Your task to perform on an android device: What's the weather going to be this weekend? Image 0: 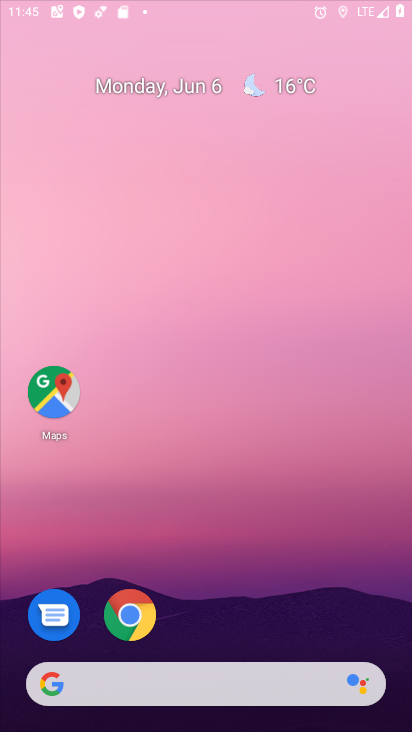
Step 0: press home button
Your task to perform on an android device: What's the weather going to be this weekend? Image 1: 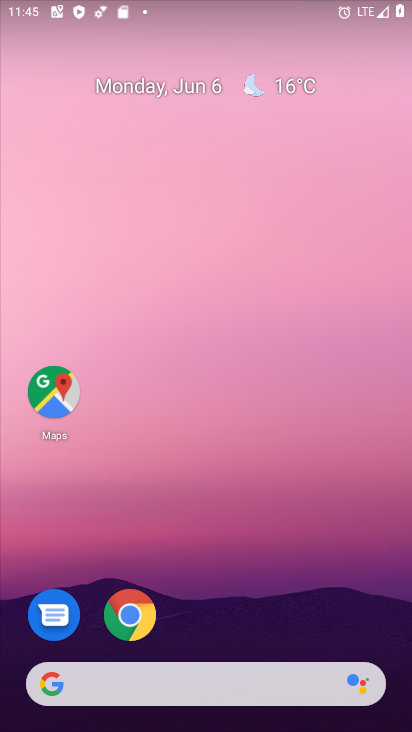
Step 1: click (295, 86)
Your task to perform on an android device: What's the weather going to be this weekend? Image 2: 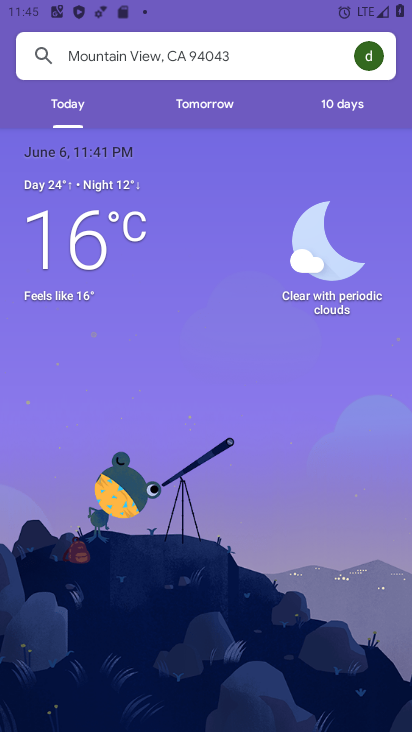
Step 2: click (348, 104)
Your task to perform on an android device: What's the weather going to be this weekend? Image 3: 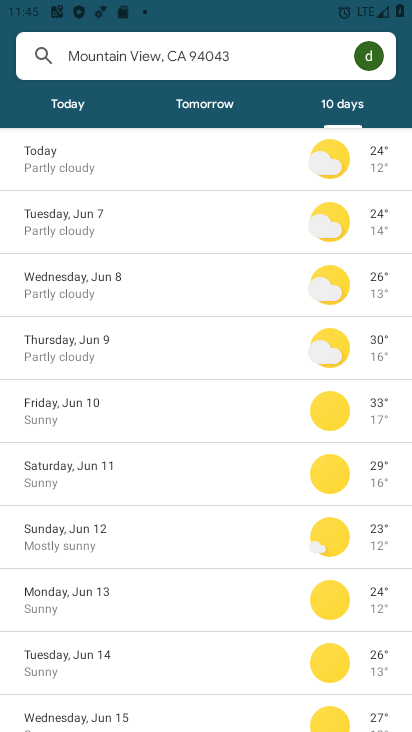
Step 3: task complete